Your task to perform on an android device: Clear the cart on bestbuy. Search for jbl charge 4 on bestbuy, select the first entry, and add it to the cart. Image 0: 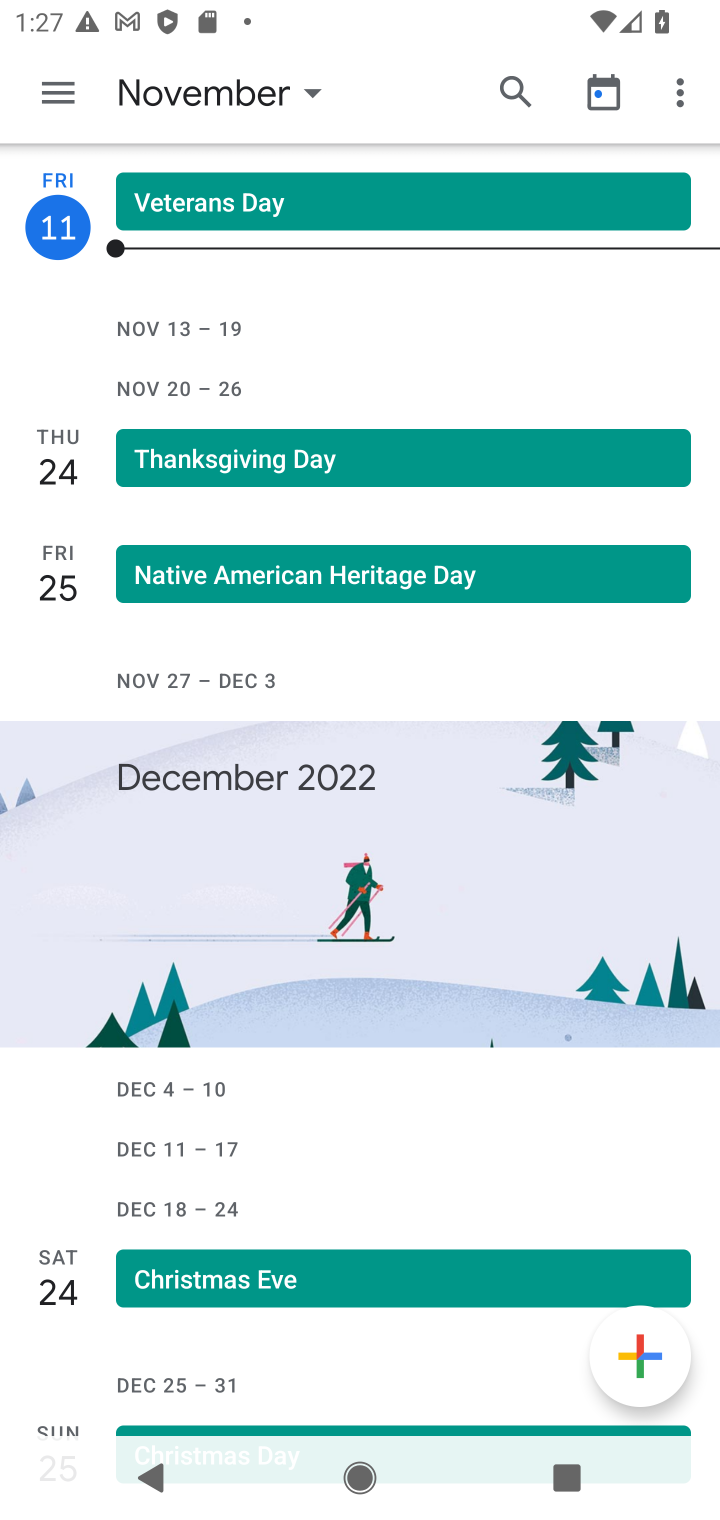
Step 0: press home button
Your task to perform on an android device: Clear the cart on bestbuy. Search for jbl charge 4 on bestbuy, select the first entry, and add it to the cart. Image 1: 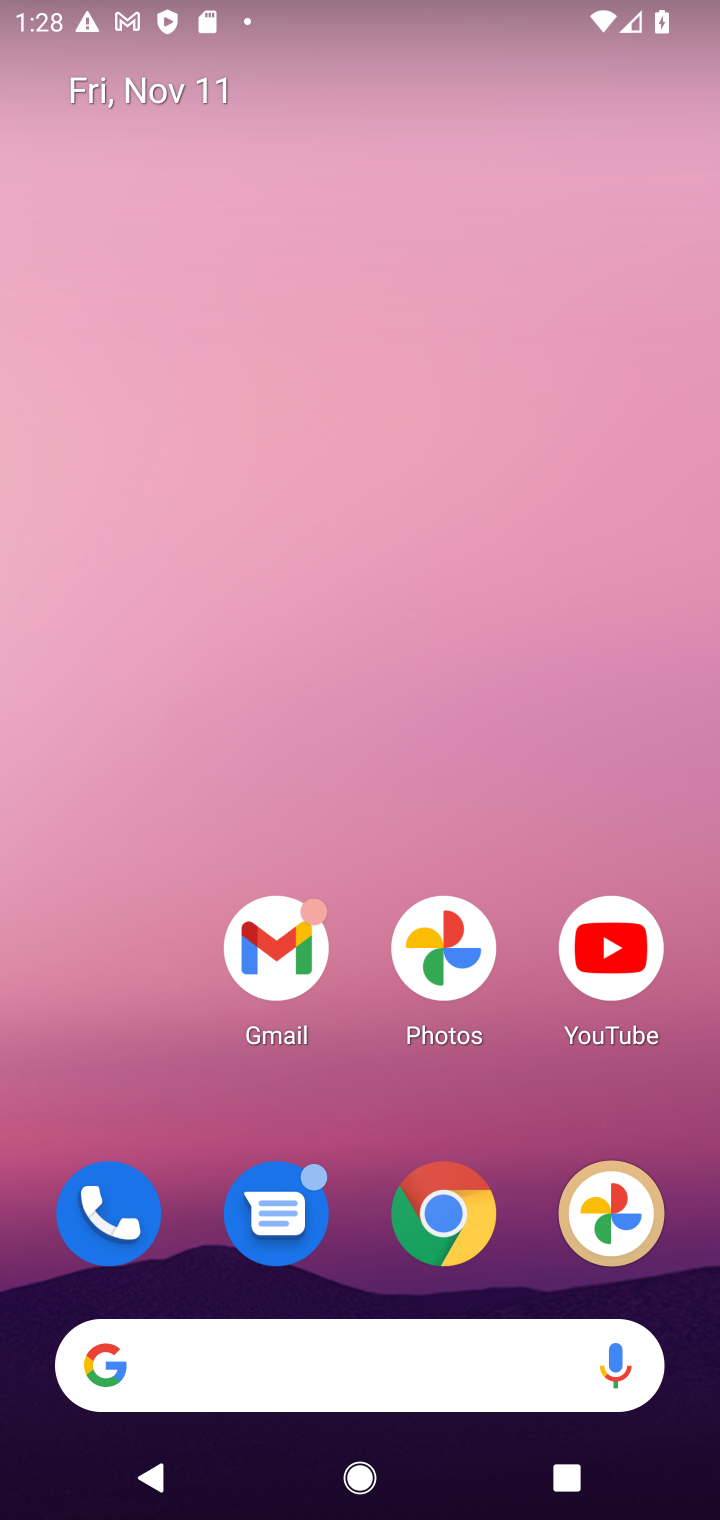
Step 1: click (443, 1215)
Your task to perform on an android device: Clear the cart on bestbuy. Search for jbl charge 4 on bestbuy, select the first entry, and add it to the cart. Image 2: 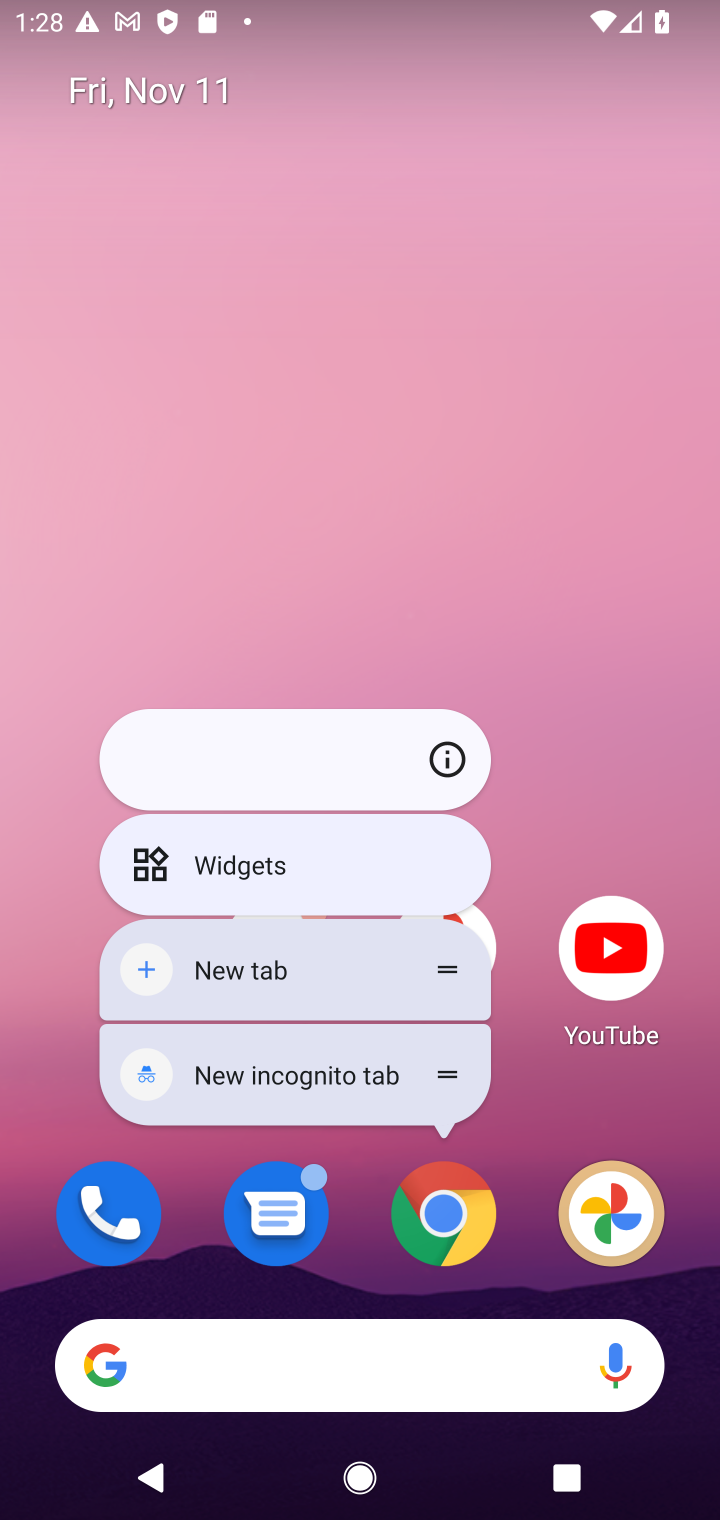
Step 2: click (443, 1218)
Your task to perform on an android device: Clear the cart on bestbuy. Search for jbl charge 4 on bestbuy, select the first entry, and add it to the cart. Image 3: 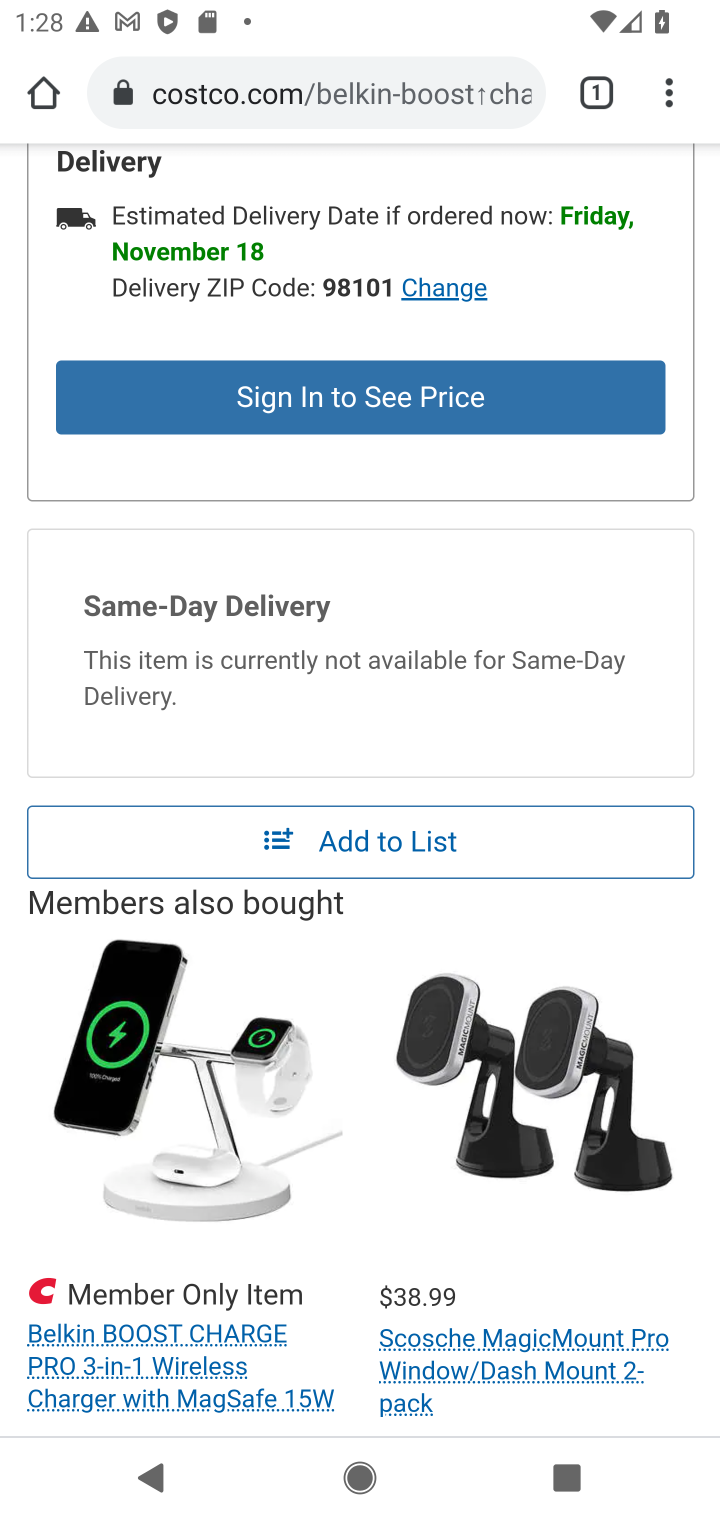
Step 3: click (368, 89)
Your task to perform on an android device: Clear the cart on bestbuy. Search for jbl charge 4 on bestbuy, select the first entry, and add it to the cart. Image 4: 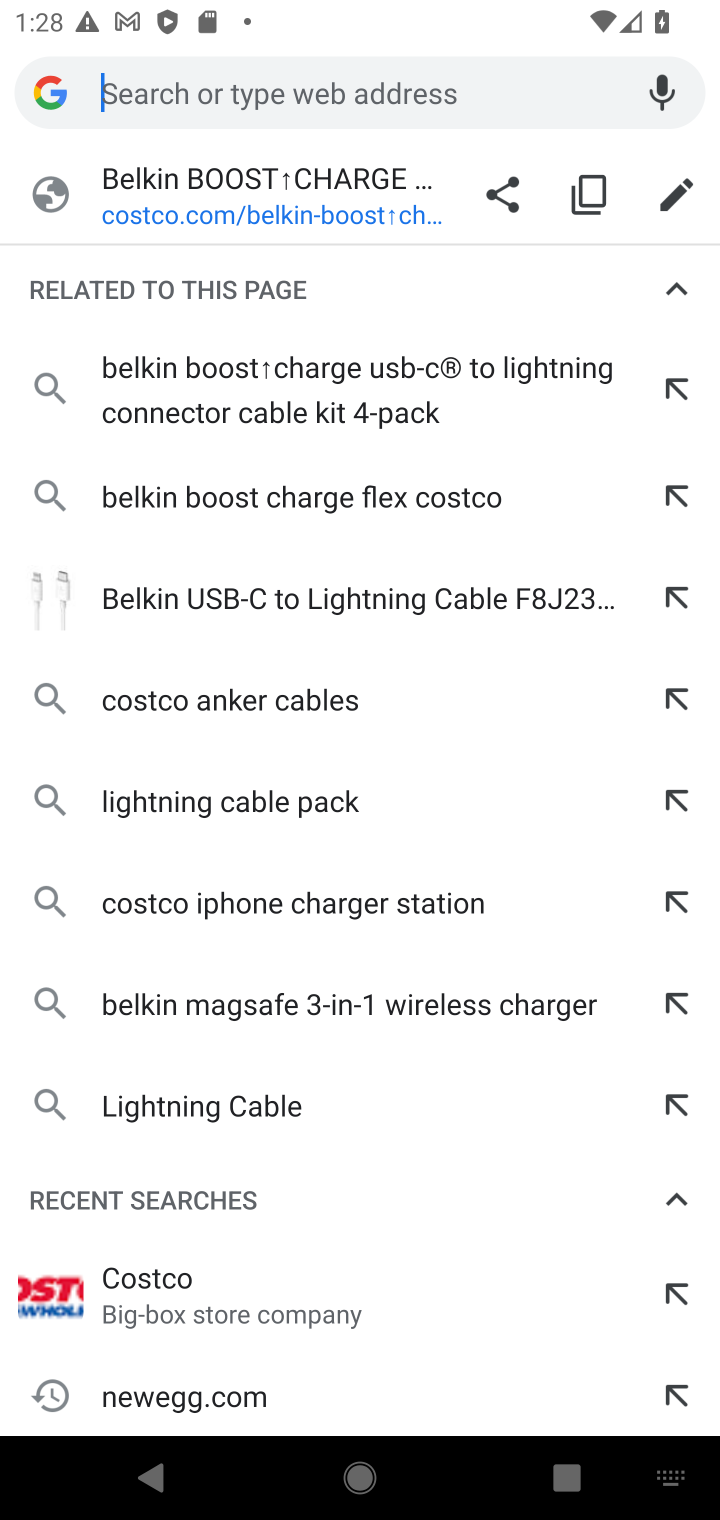
Step 4: type "bestbuy"
Your task to perform on an android device: Clear the cart on bestbuy. Search for jbl charge 4 on bestbuy, select the first entry, and add it to the cart. Image 5: 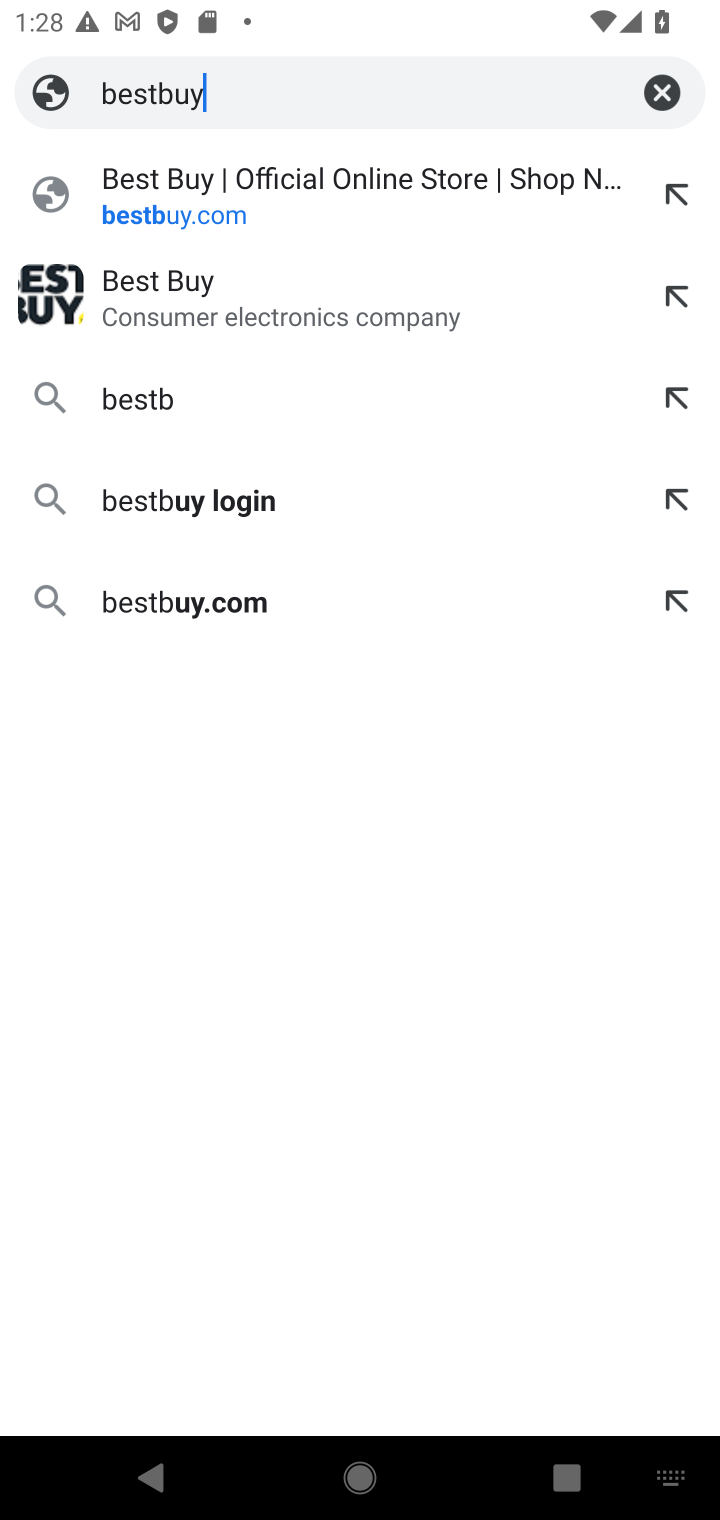
Step 5: press enter
Your task to perform on an android device: Clear the cart on bestbuy. Search for jbl charge 4 on bestbuy, select the first entry, and add it to the cart. Image 6: 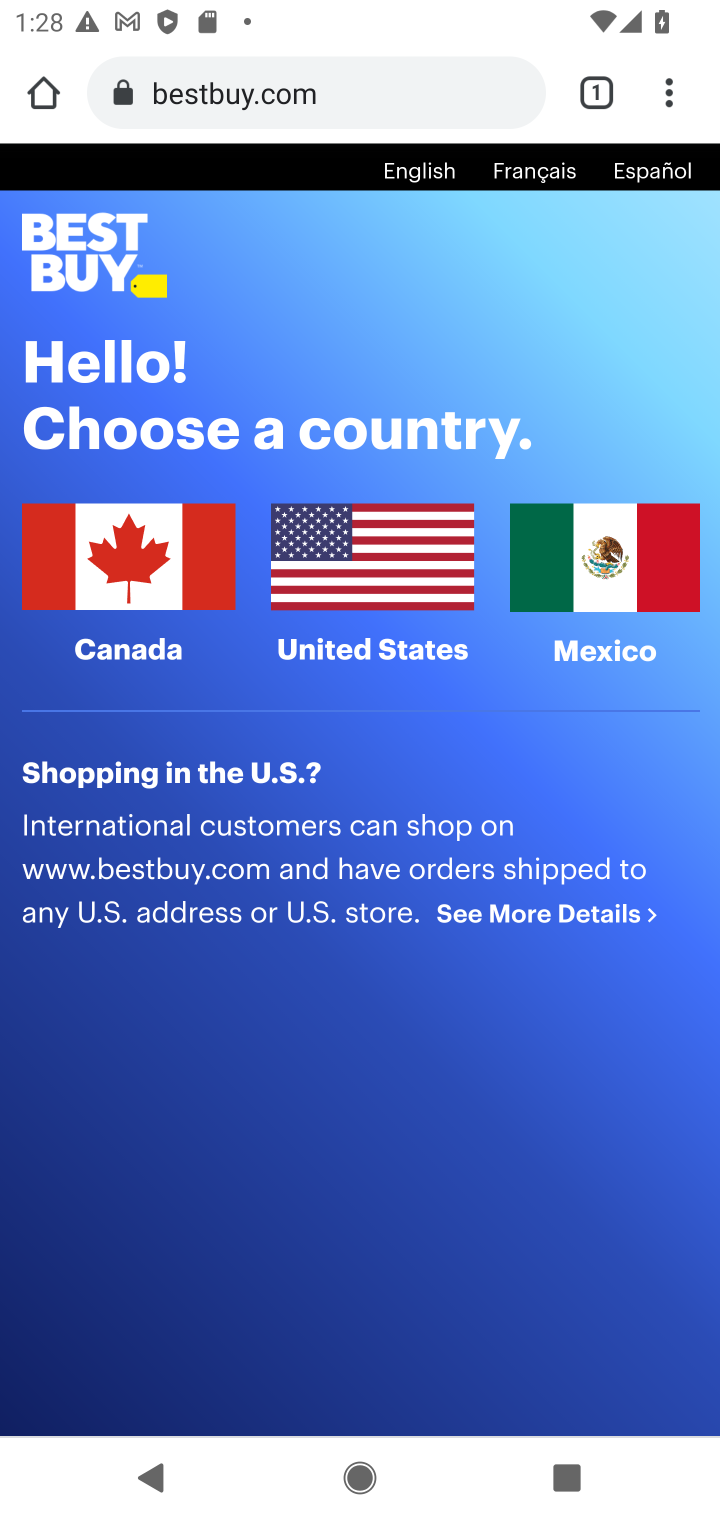
Step 6: click (153, 601)
Your task to perform on an android device: Clear the cart on bestbuy. Search for jbl charge 4 on bestbuy, select the first entry, and add it to the cart. Image 7: 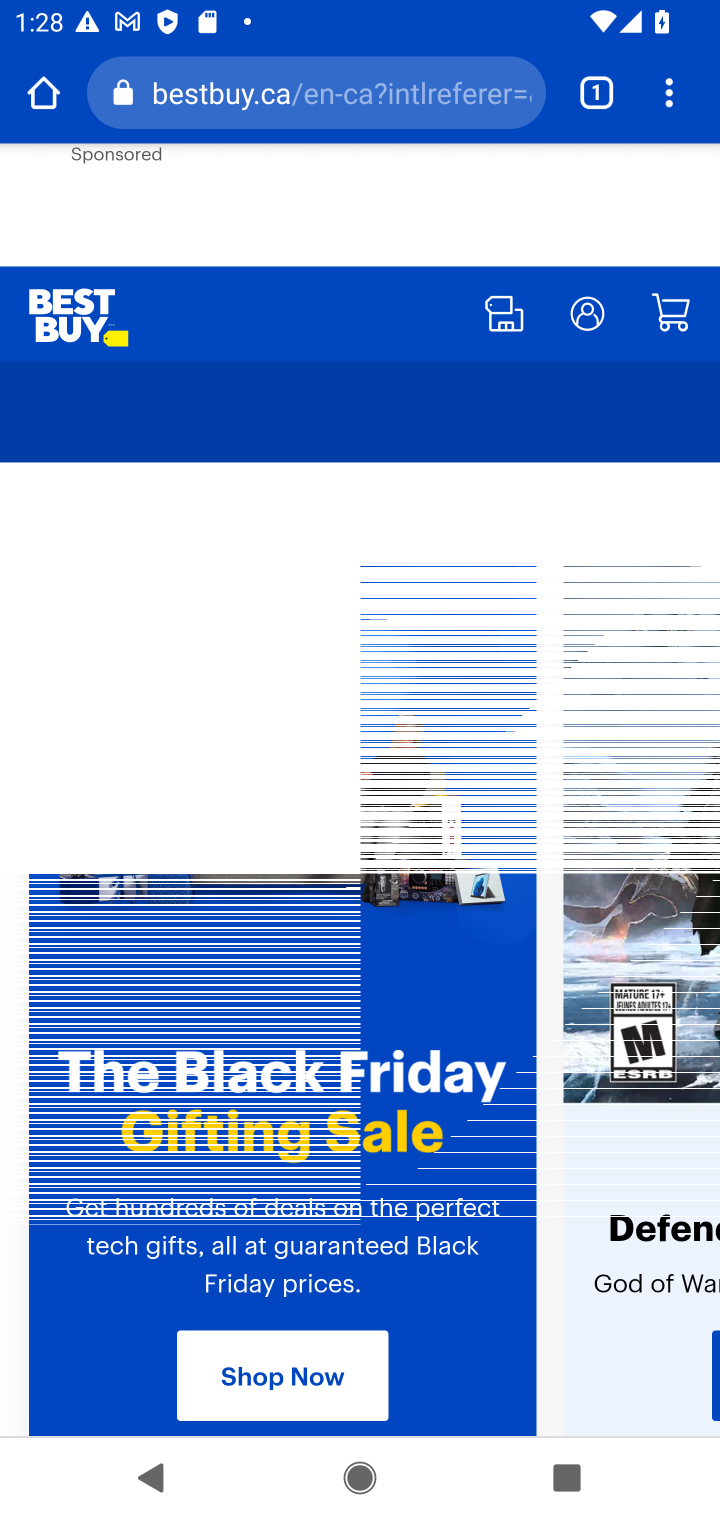
Step 7: click (327, 376)
Your task to perform on an android device: Clear the cart on bestbuy. Search for jbl charge 4 on bestbuy, select the first entry, and add it to the cart. Image 8: 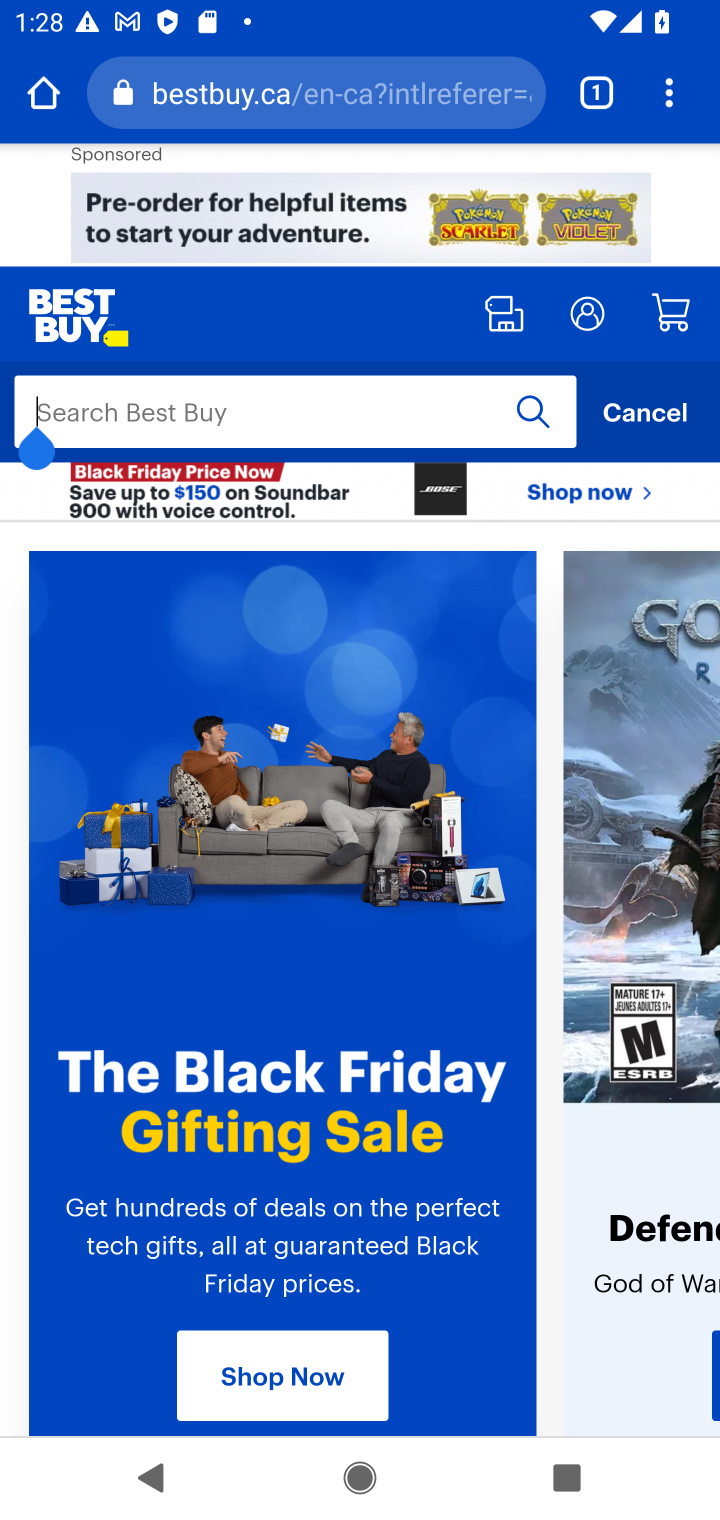
Step 8: type " jbl charge 4"
Your task to perform on an android device: Clear the cart on bestbuy. Search for jbl charge 4 on bestbuy, select the first entry, and add it to the cart. Image 9: 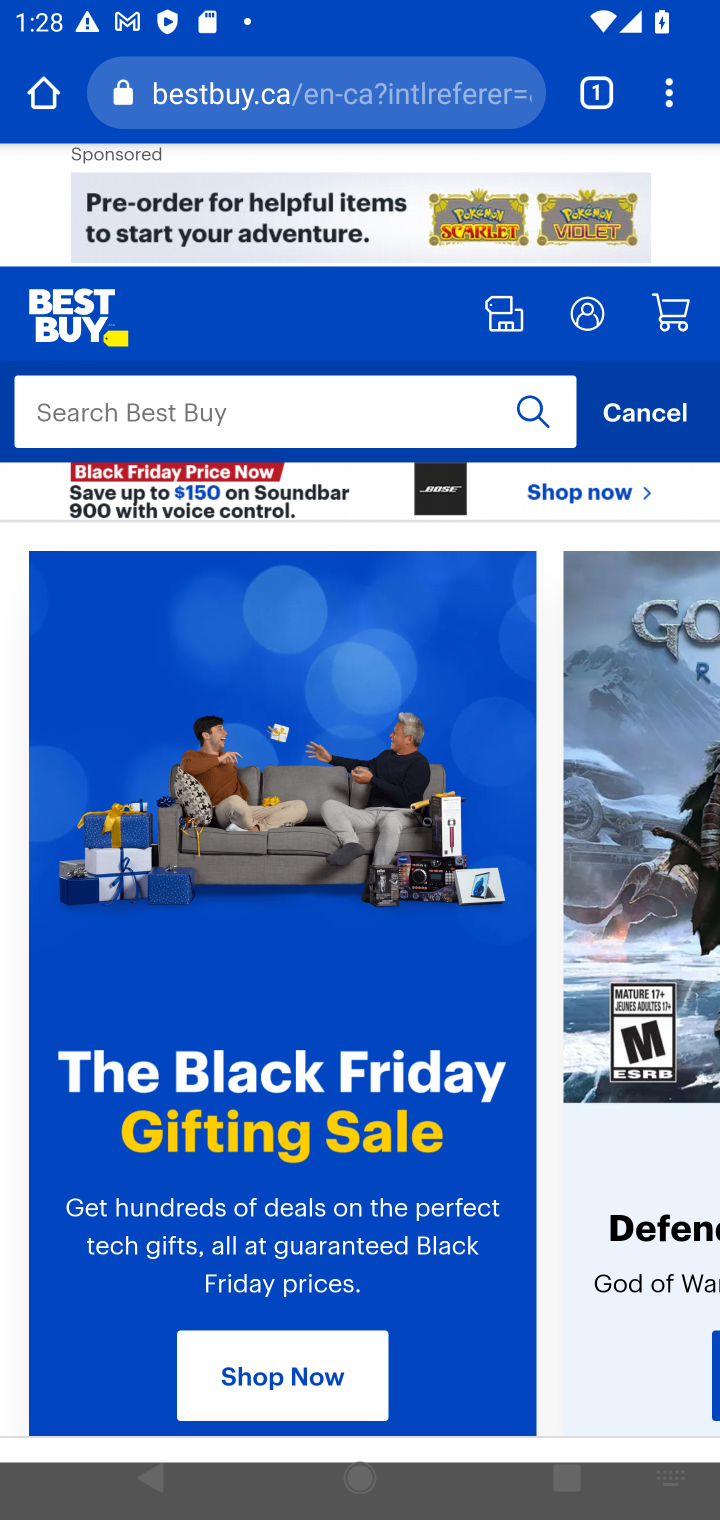
Step 9: press enter
Your task to perform on an android device: Clear the cart on bestbuy. Search for jbl charge 4 on bestbuy, select the first entry, and add it to the cart. Image 10: 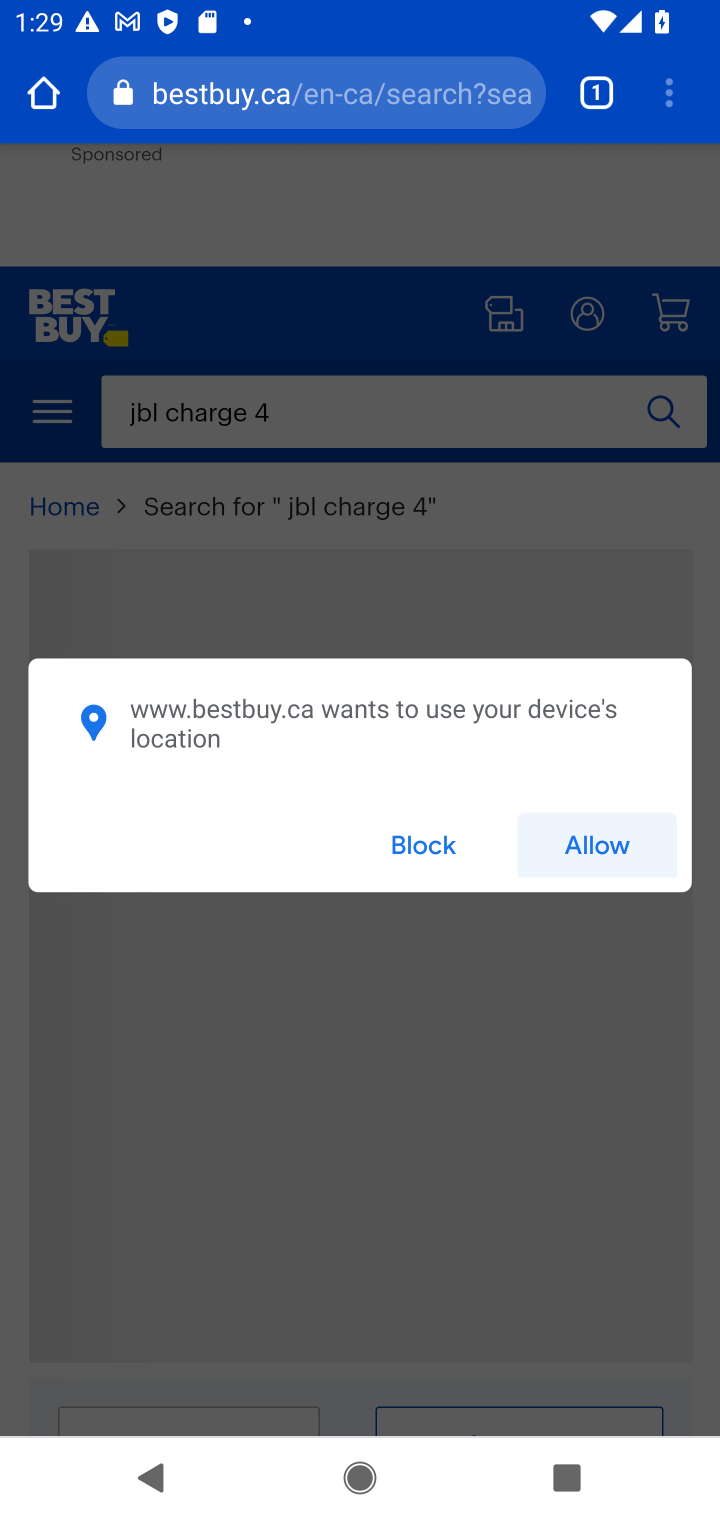
Step 10: click (594, 836)
Your task to perform on an android device: Clear the cart on bestbuy. Search for jbl charge 4 on bestbuy, select the first entry, and add it to the cart. Image 11: 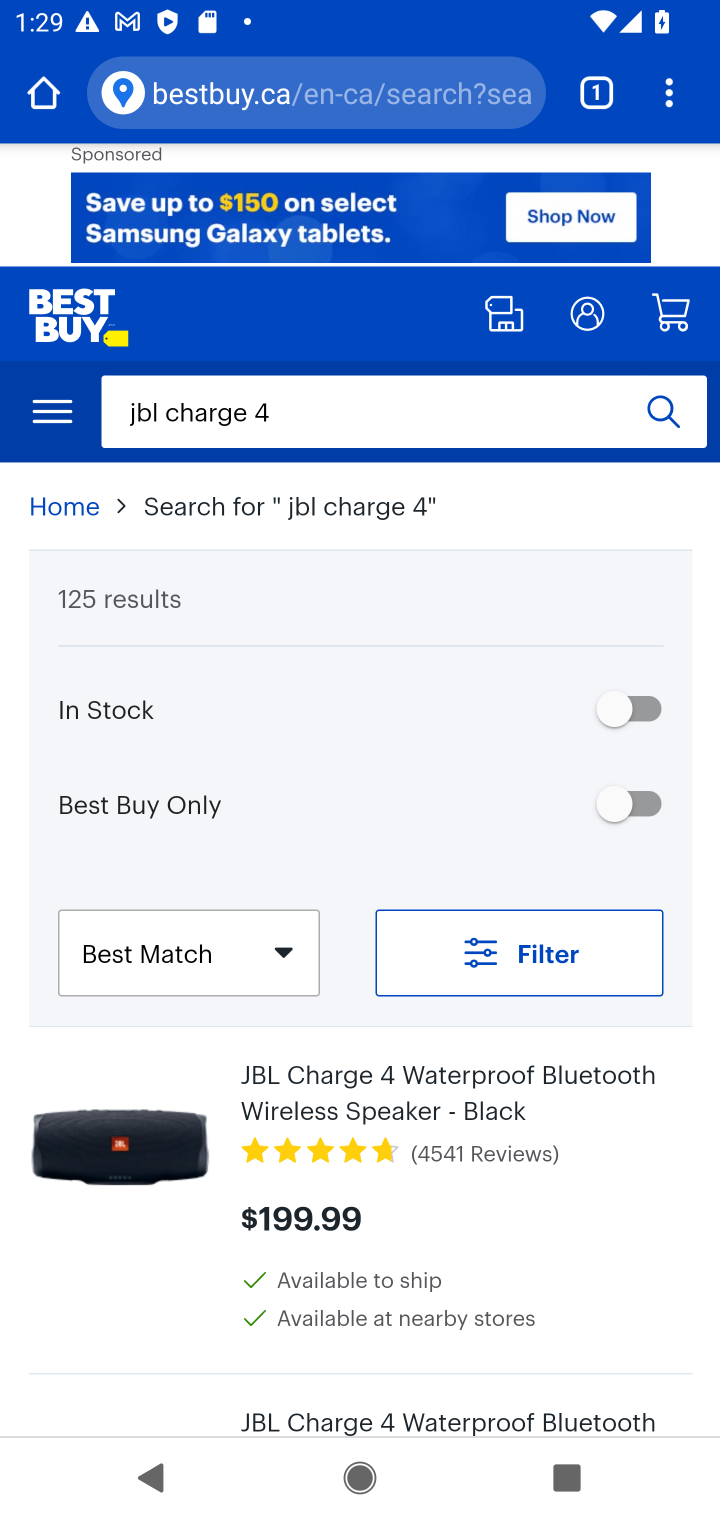
Step 11: drag from (407, 1251) to (427, 790)
Your task to perform on an android device: Clear the cart on bestbuy. Search for jbl charge 4 on bestbuy, select the first entry, and add it to the cart. Image 12: 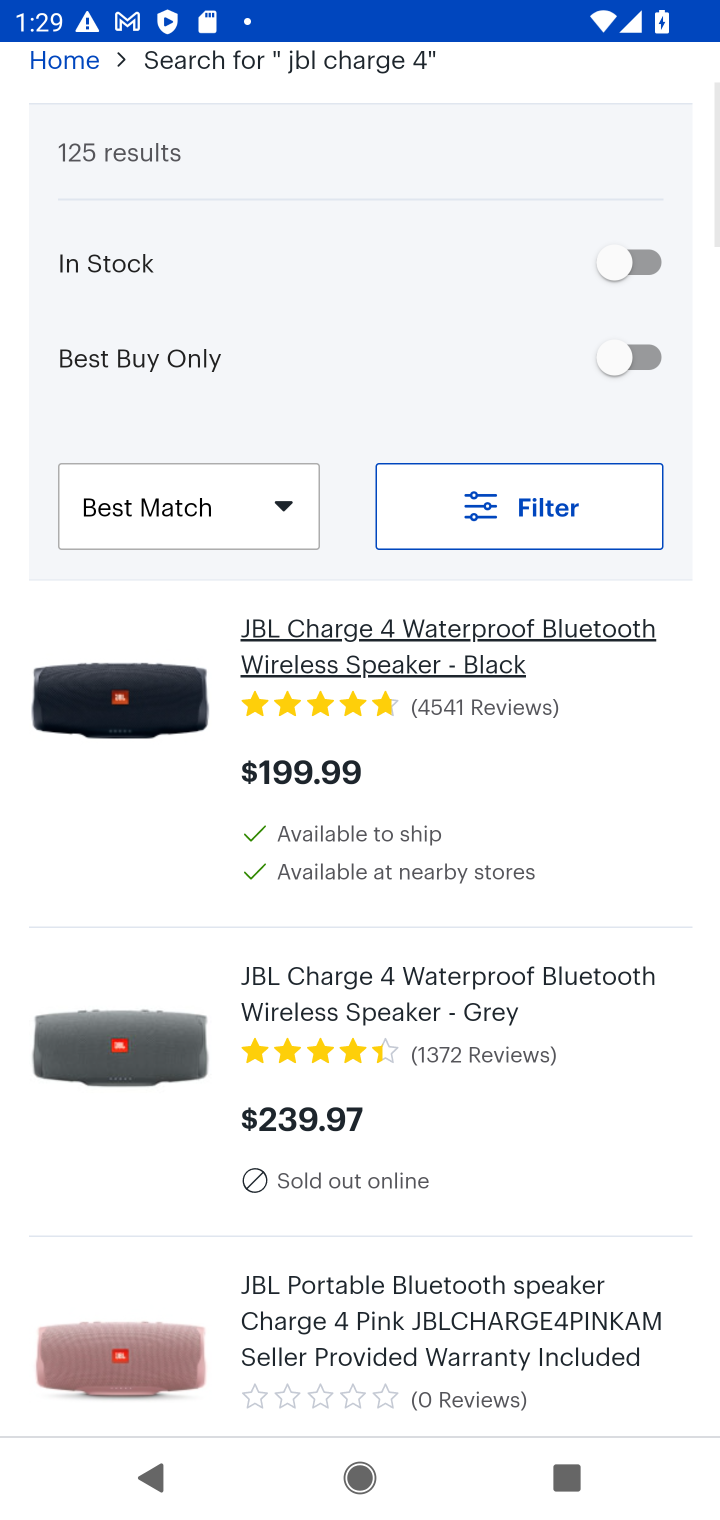
Step 12: click (372, 735)
Your task to perform on an android device: Clear the cart on bestbuy. Search for jbl charge 4 on bestbuy, select the first entry, and add it to the cart. Image 13: 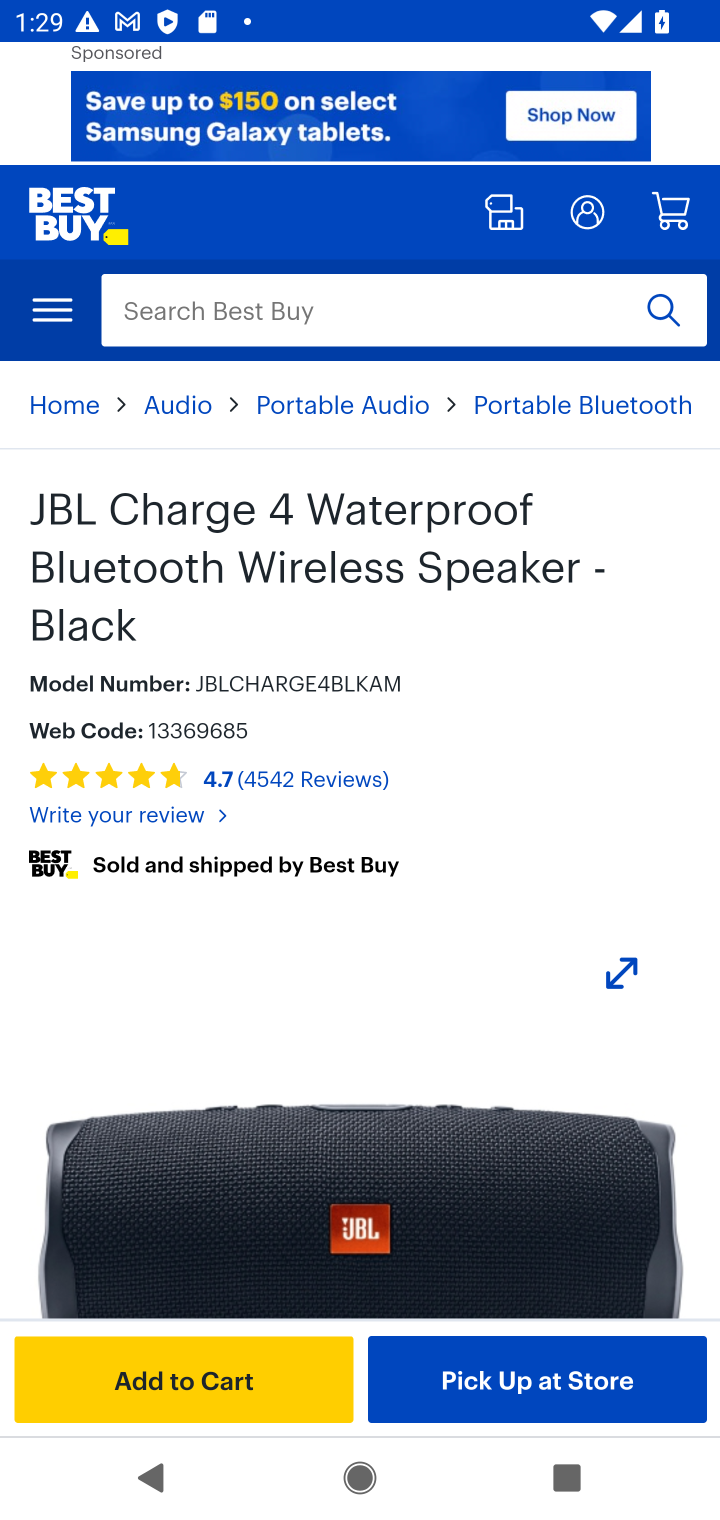
Step 13: drag from (228, 1082) to (392, 571)
Your task to perform on an android device: Clear the cart on bestbuy. Search for jbl charge 4 on bestbuy, select the first entry, and add it to the cart. Image 14: 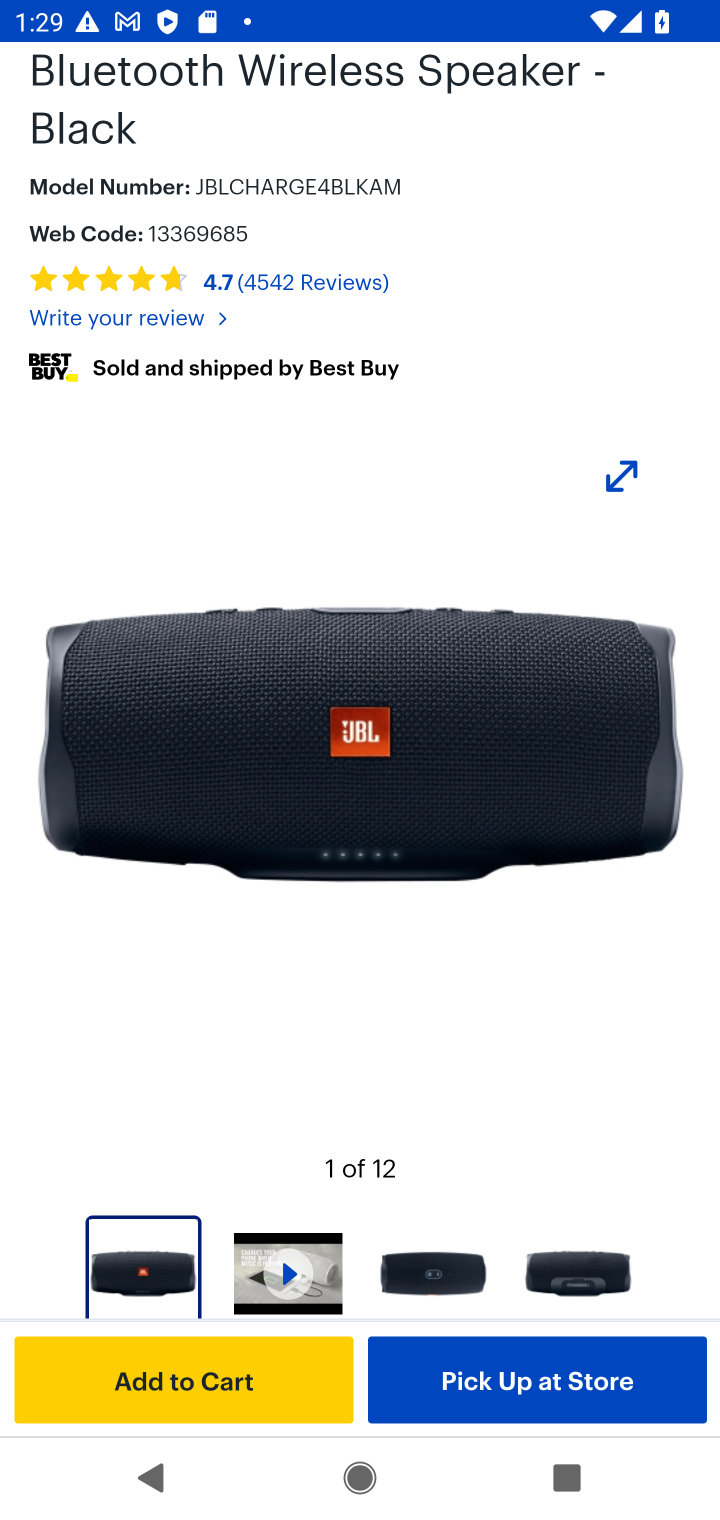
Step 14: click (204, 1384)
Your task to perform on an android device: Clear the cart on bestbuy. Search for jbl charge 4 on bestbuy, select the first entry, and add it to the cart. Image 15: 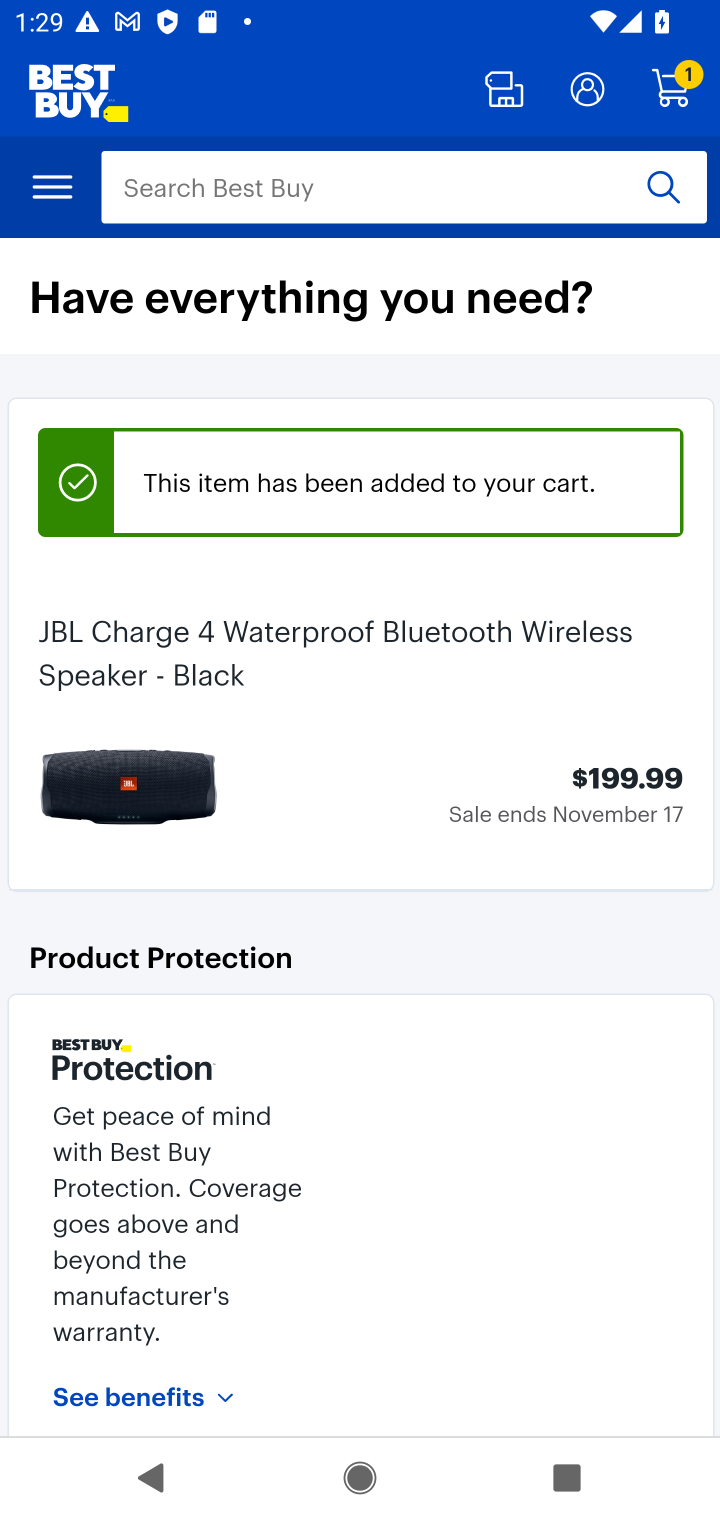
Step 15: click (685, 93)
Your task to perform on an android device: Clear the cart on bestbuy. Search for jbl charge 4 on bestbuy, select the first entry, and add it to the cart. Image 16: 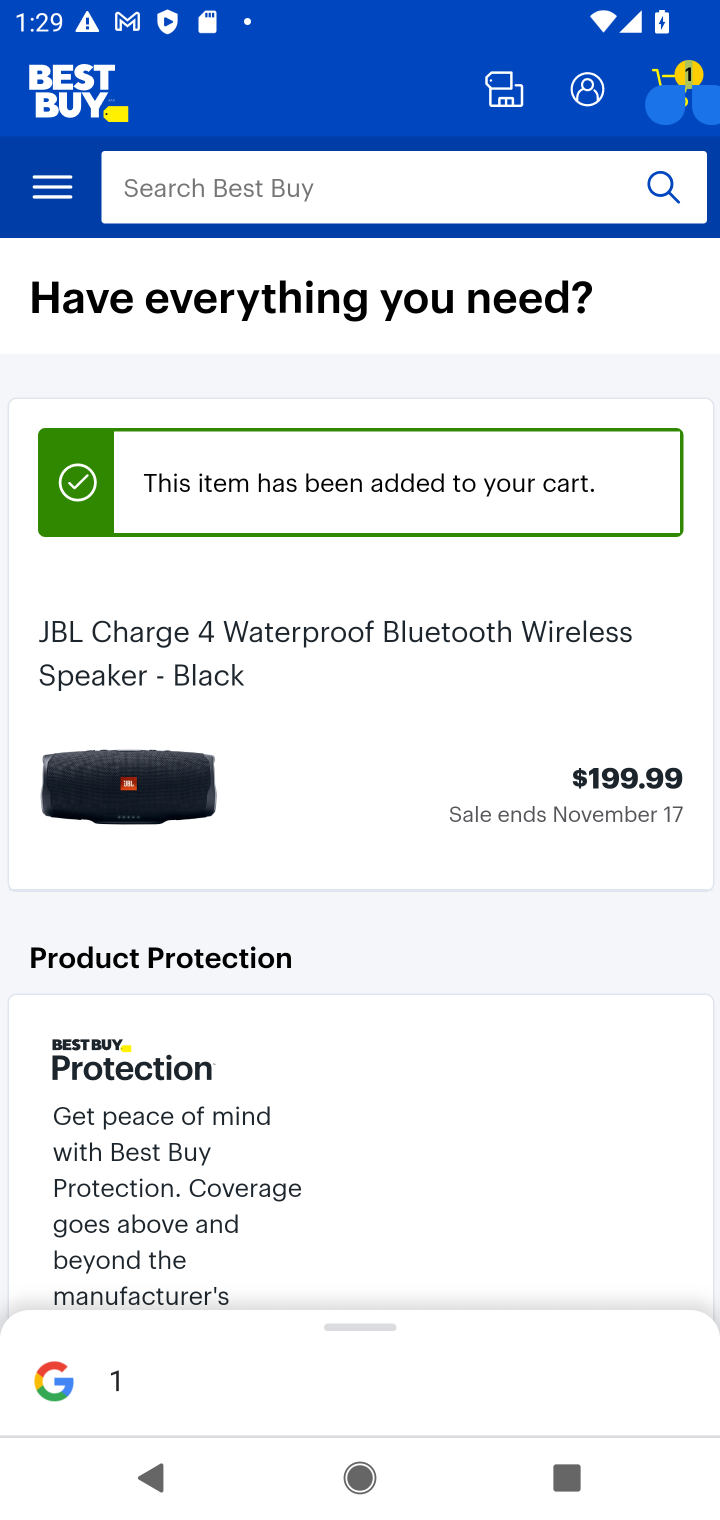
Step 16: click (680, 69)
Your task to perform on an android device: Clear the cart on bestbuy. Search for jbl charge 4 on bestbuy, select the first entry, and add it to the cart. Image 17: 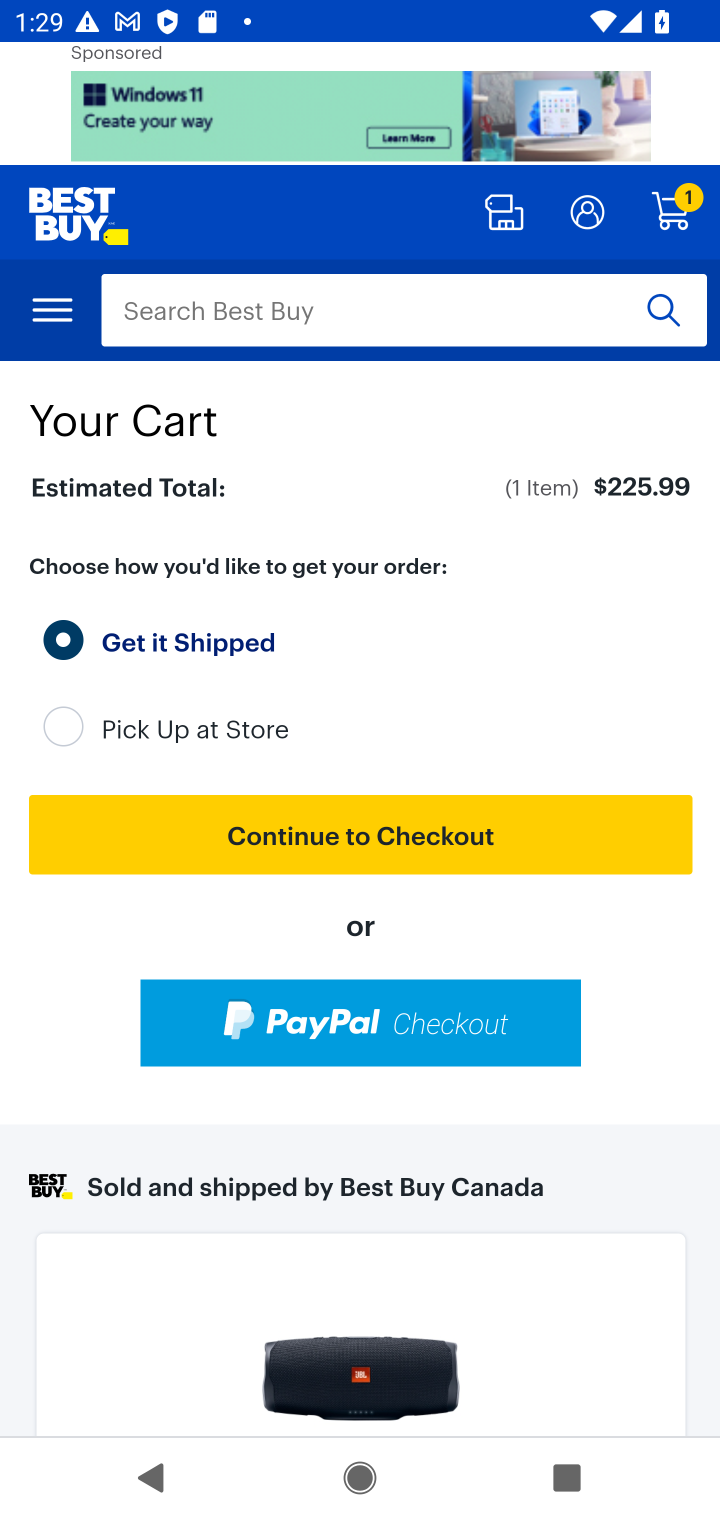
Step 17: task complete